Your task to perform on an android device: Search for pizza restaurants on Maps Image 0: 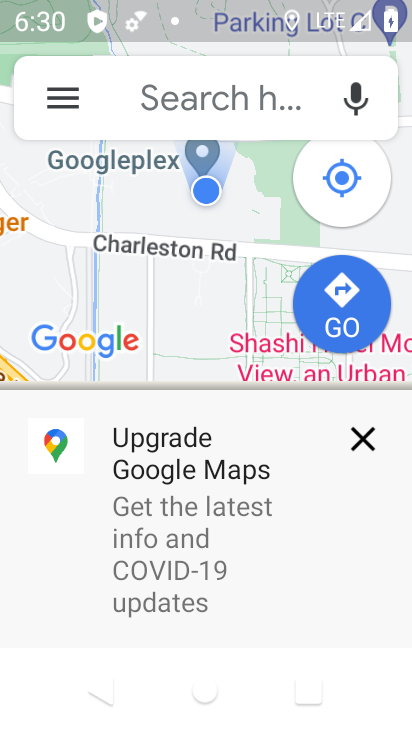
Step 0: press home button
Your task to perform on an android device: Search for pizza restaurants on Maps Image 1: 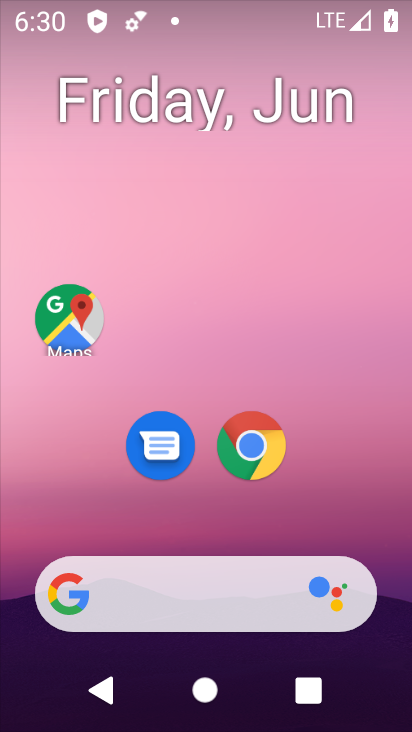
Step 1: click (61, 319)
Your task to perform on an android device: Search for pizza restaurants on Maps Image 2: 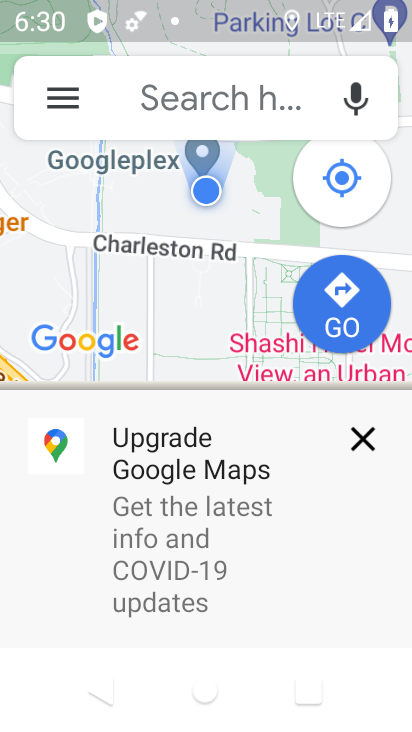
Step 2: click (356, 439)
Your task to perform on an android device: Search for pizza restaurants on Maps Image 3: 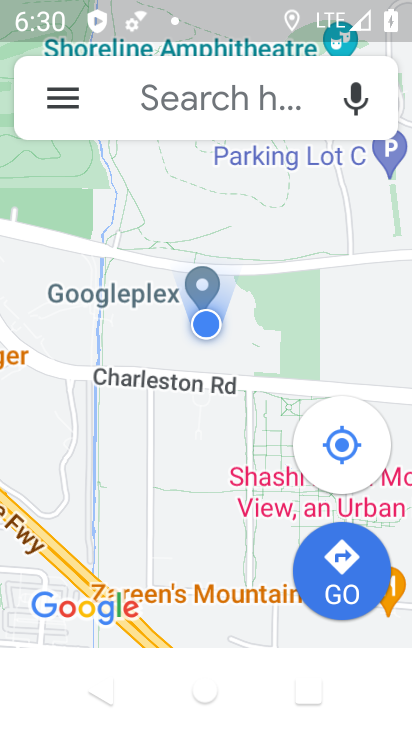
Step 3: click (213, 109)
Your task to perform on an android device: Search for pizza restaurants on Maps Image 4: 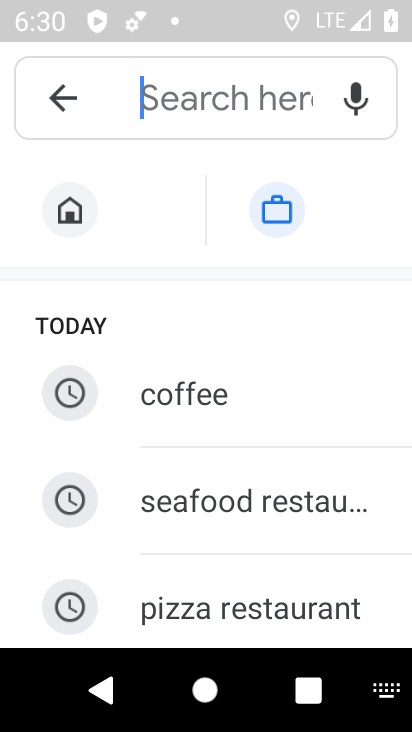
Step 4: click (286, 608)
Your task to perform on an android device: Search for pizza restaurants on Maps Image 5: 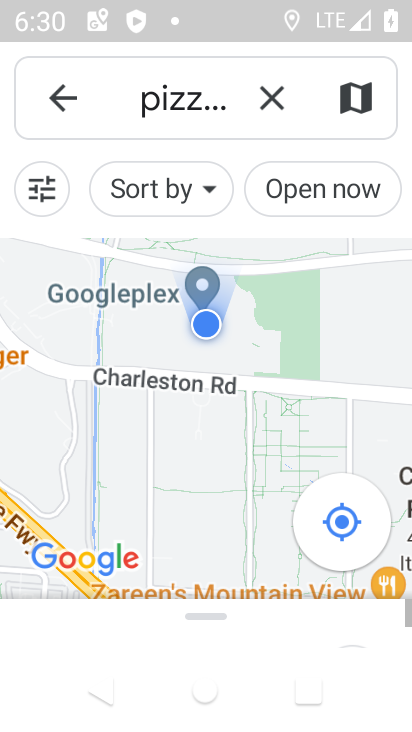
Step 5: task complete